Your task to perform on an android device: What is the news today? Image 0: 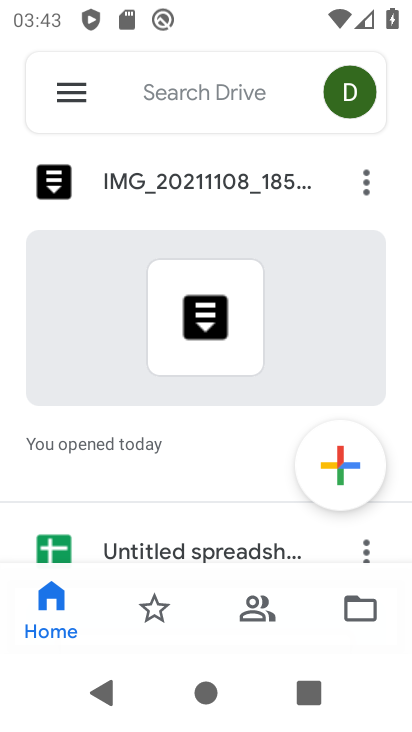
Step 0: press home button
Your task to perform on an android device: What is the news today? Image 1: 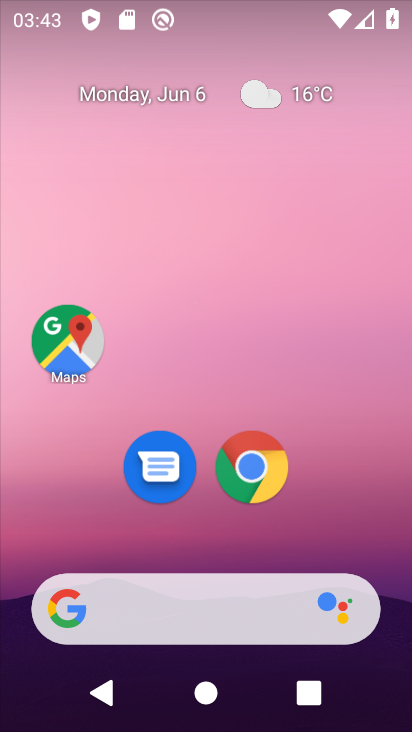
Step 1: task complete